Your task to perform on an android device: show emergency info Image 0: 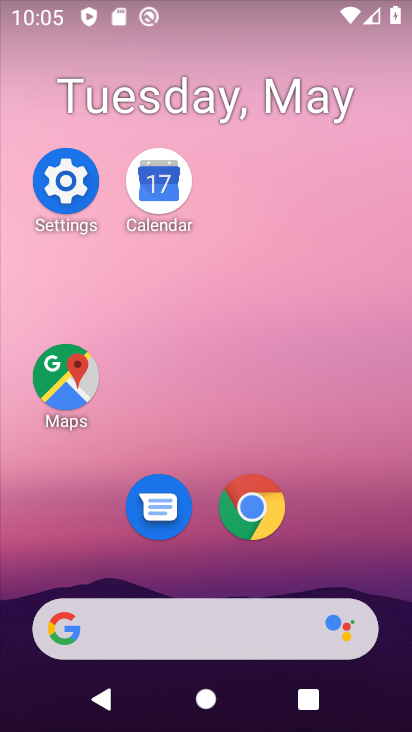
Step 0: click (72, 178)
Your task to perform on an android device: show emergency info Image 1: 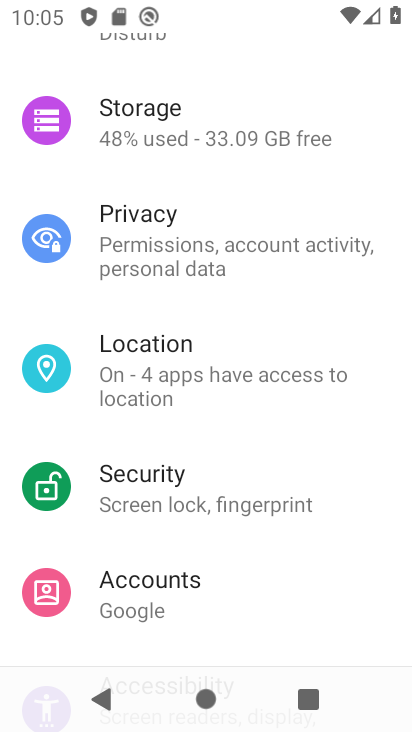
Step 1: drag from (250, 583) to (276, 72)
Your task to perform on an android device: show emergency info Image 2: 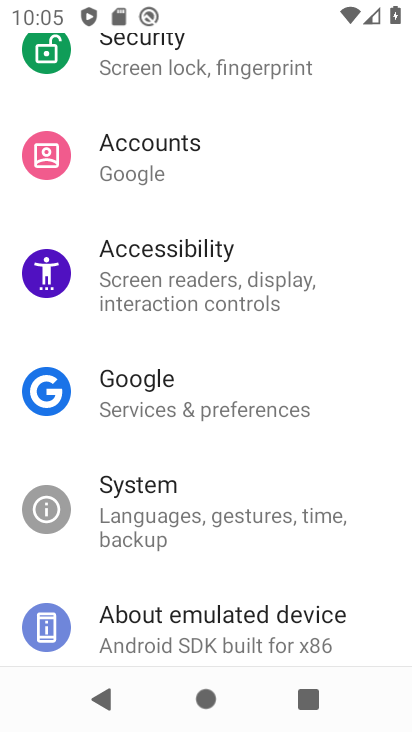
Step 2: drag from (297, 525) to (313, 137)
Your task to perform on an android device: show emergency info Image 3: 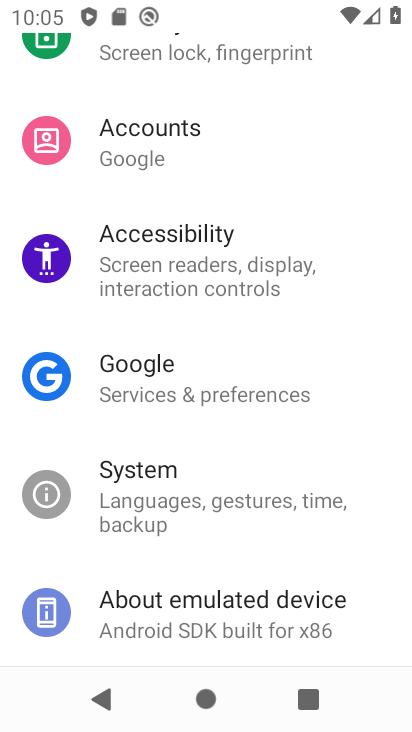
Step 3: drag from (238, 599) to (262, 241)
Your task to perform on an android device: show emergency info Image 4: 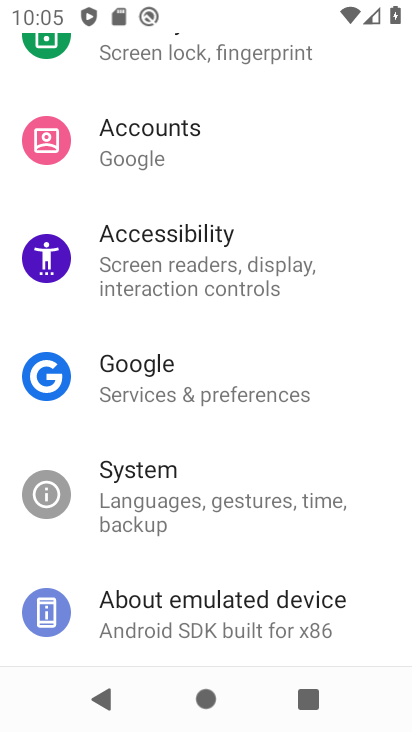
Step 4: click (302, 605)
Your task to perform on an android device: show emergency info Image 5: 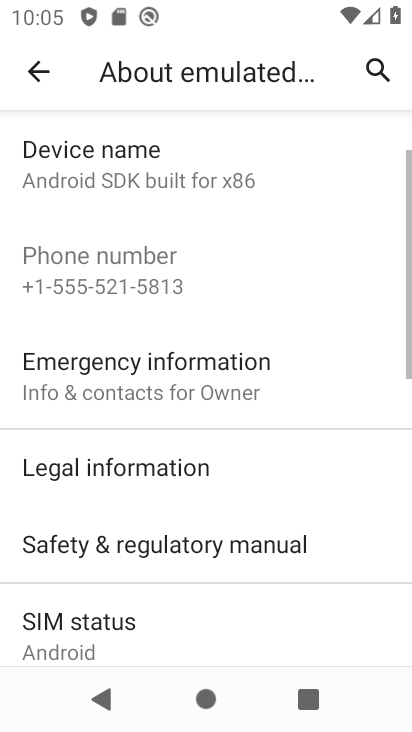
Step 5: click (265, 375)
Your task to perform on an android device: show emergency info Image 6: 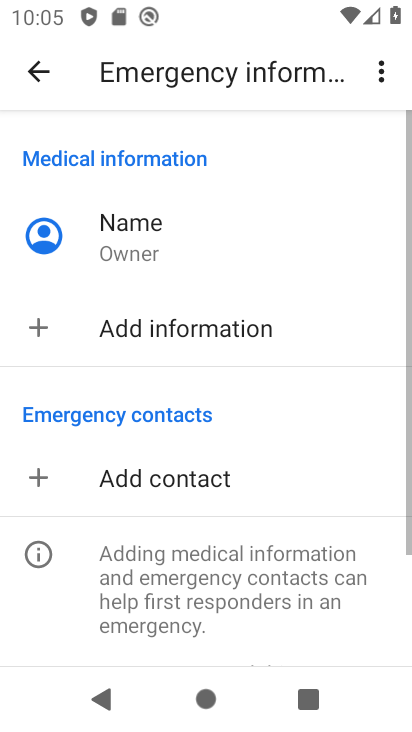
Step 6: task complete